Your task to perform on an android device: toggle show notifications on the lock screen Image 0: 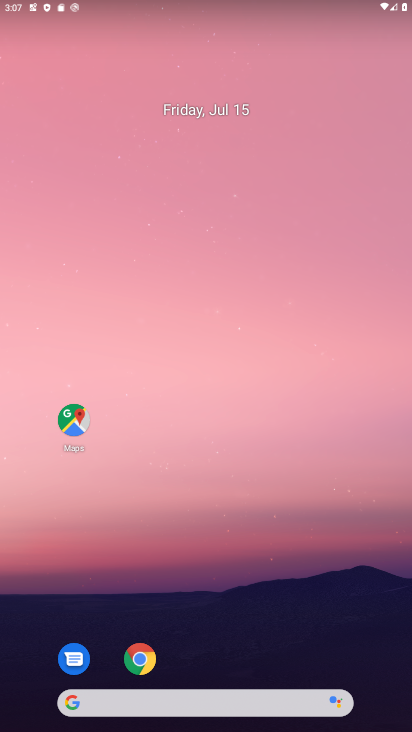
Step 0: drag from (147, 643) to (147, 238)
Your task to perform on an android device: toggle show notifications on the lock screen Image 1: 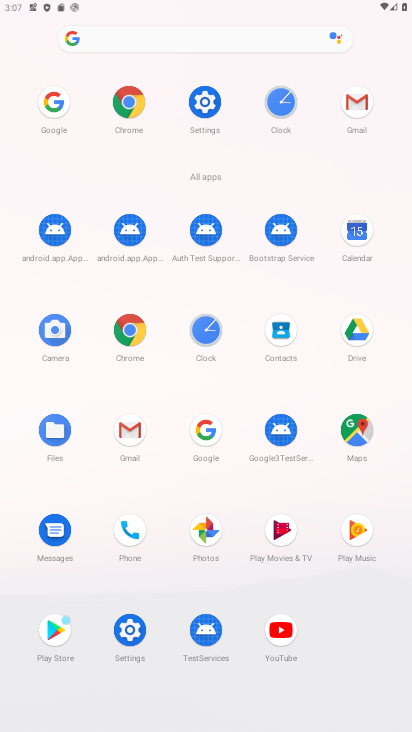
Step 1: click (209, 112)
Your task to perform on an android device: toggle show notifications on the lock screen Image 2: 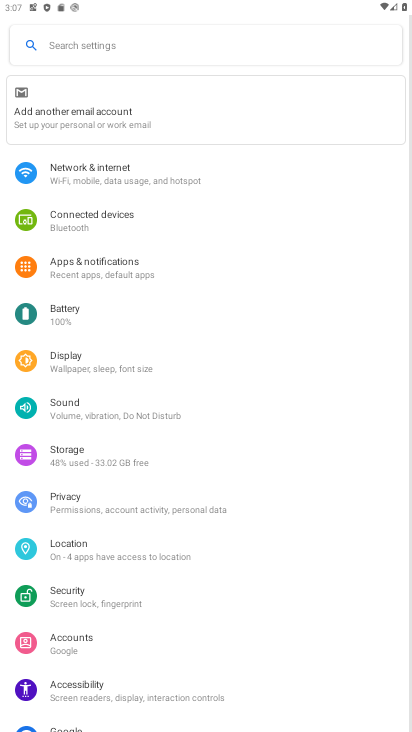
Step 2: click (72, 506)
Your task to perform on an android device: toggle show notifications on the lock screen Image 3: 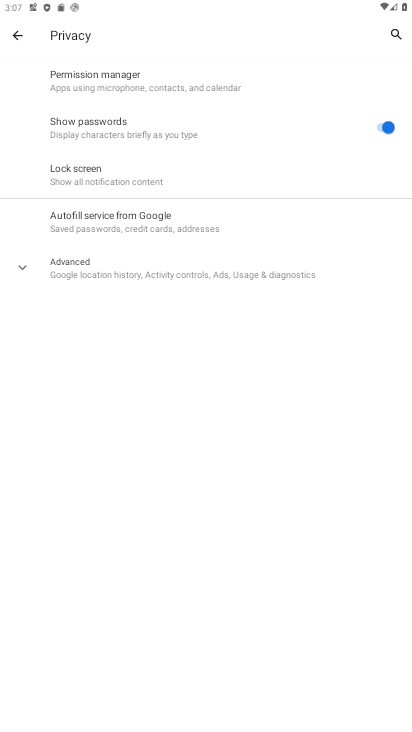
Step 3: click (59, 163)
Your task to perform on an android device: toggle show notifications on the lock screen Image 4: 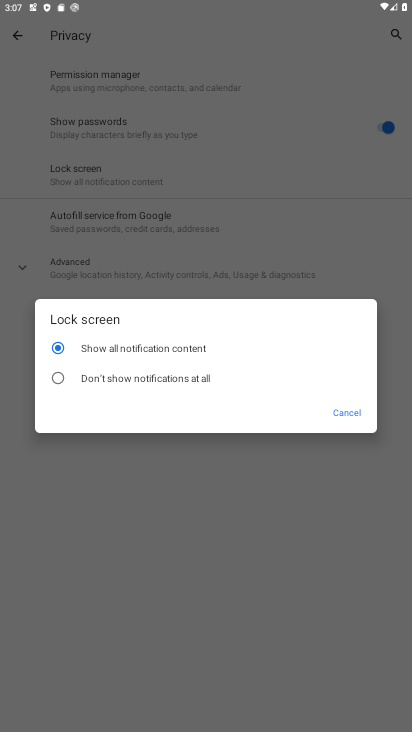
Step 4: click (115, 382)
Your task to perform on an android device: toggle show notifications on the lock screen Image 5: 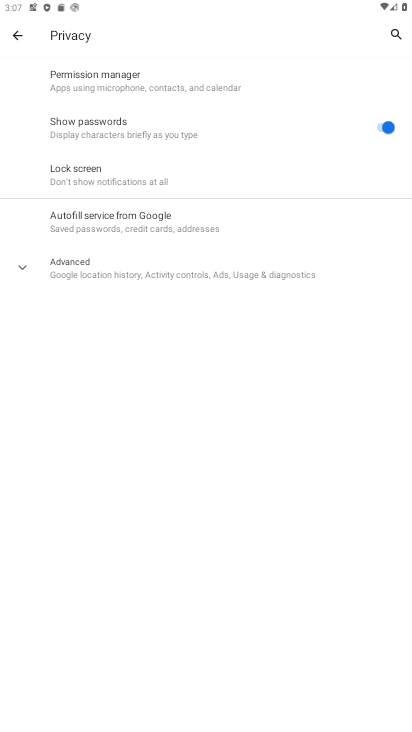
Step 5: task complete